Your task to perform on an android device: turn on notifications settings in the gmail app Image 0: 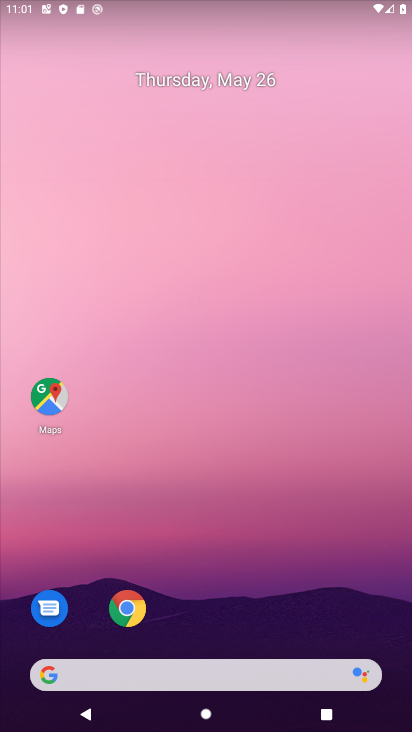
Step 0: drag from (216, 610) to (222, 153)
Your task to perform on an android device: turn on notifications settings in the gmail app Image 1: 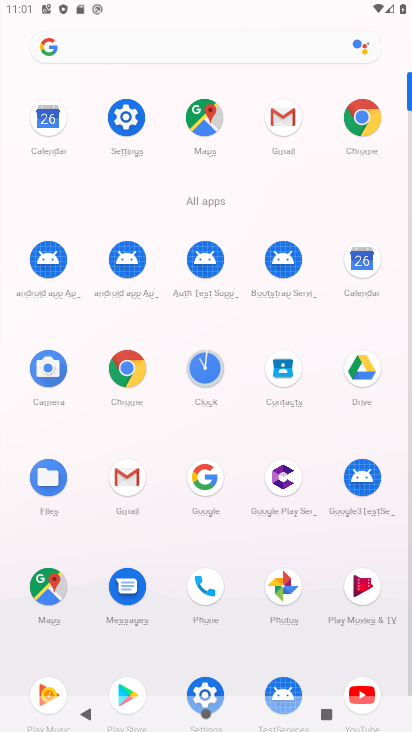
Step 1: click (285, 118)
Your task to perform on an android device: turn on notifications settings in the gmail app Image 2: 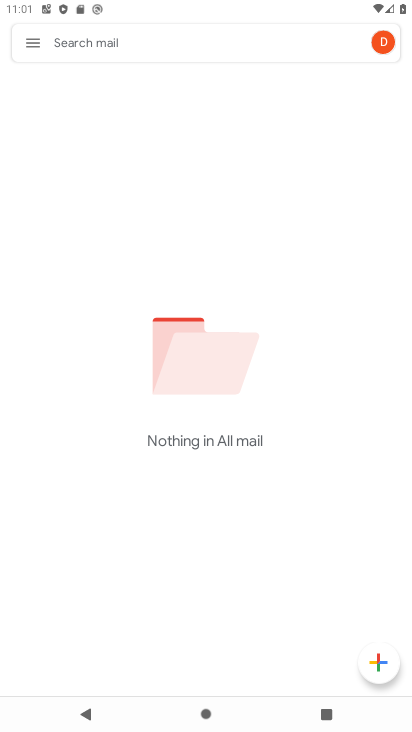
Step 2: click (25, 42)
Your task to perform on an android device: turn on notifications settings in the gmail app Image 3: 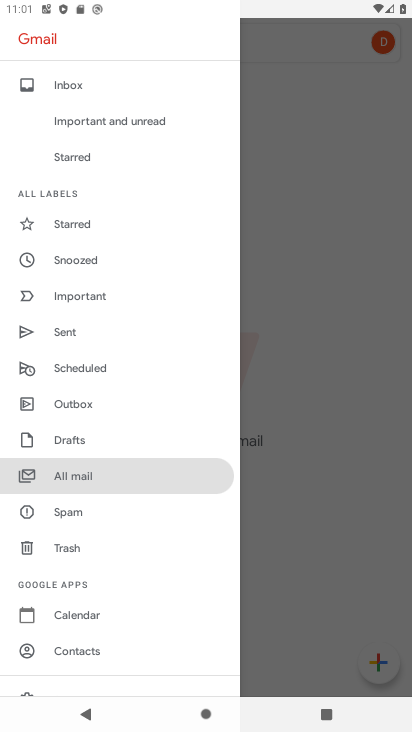
Step 3: drag from (98, 635) to (104, 283)
Your task to perform on an android device: turn on notifications settings in the gmail app Image 4: 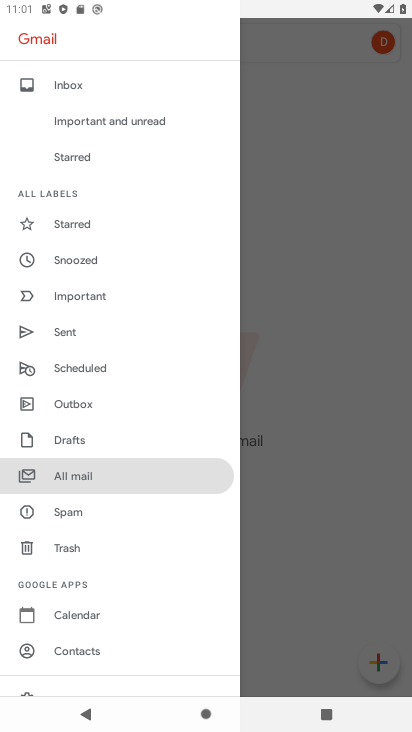
Step 4: drag from (87, 647) to (69, 371)
Your task to perform on an android device: turn on notifications settings in the gmail app Image 5: 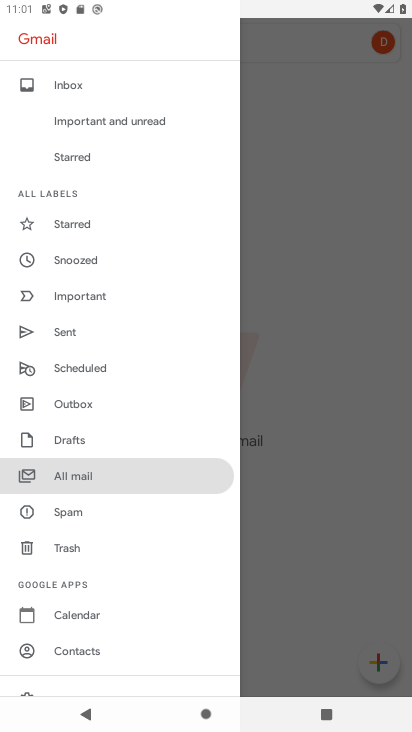
Step 5: drag from (118, 643) to (108, 372)
Your task to perform on an android device: turn on notifications settings in the gmail app Image 6: 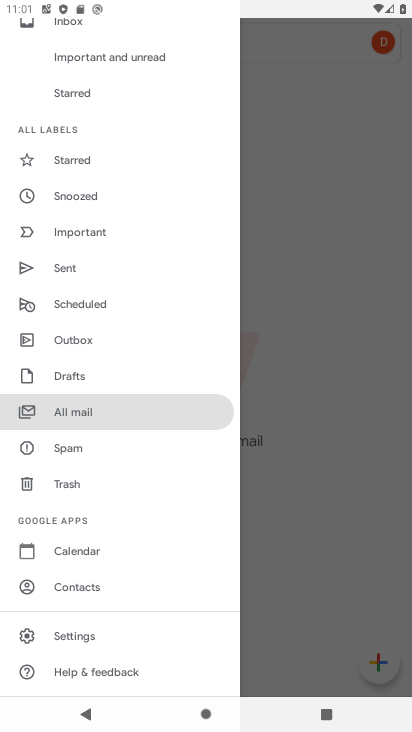
Step 6: click (80, 635)
Your task to perform on an android device: turn on notifications settings in the gmail app Image 7: 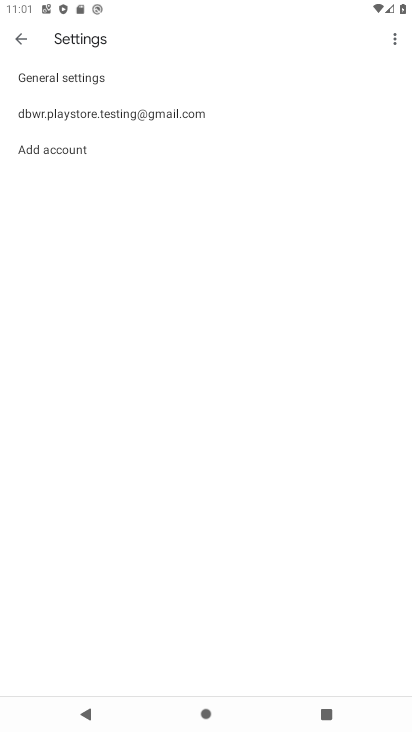
Step 7: click (223, 122)
Your task to perform on an android device: turn on notifications settings in the gmail app Image 8: 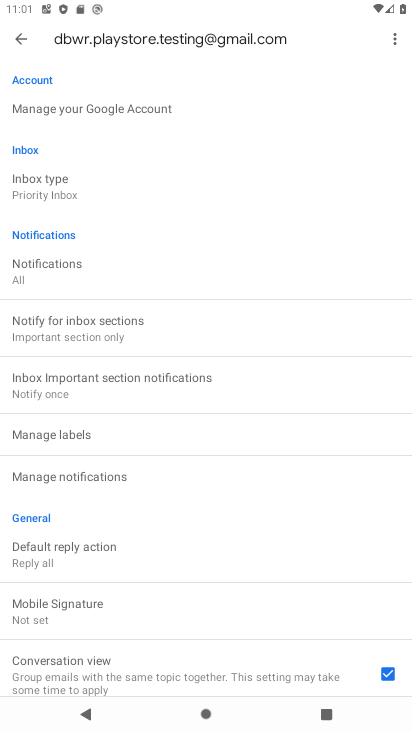
Step 8: click (121, 474)
Your task to perform on an android device: turn on notifications settings in the gmail app Image 9: 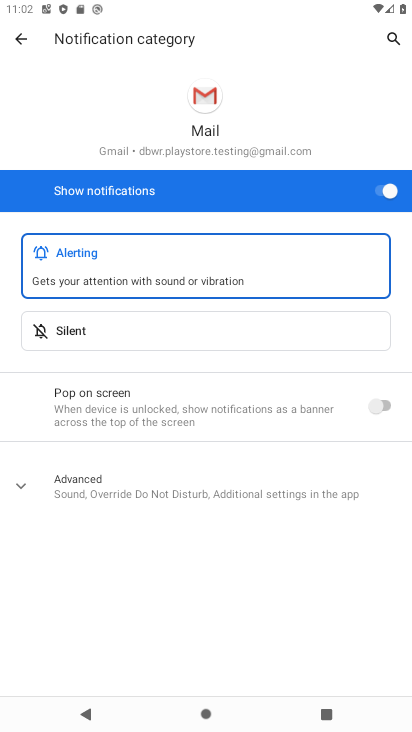
Step 9: click (379, 415)
Your task to perform on an android device: turn on notifications settings in the gmail app Image 10: 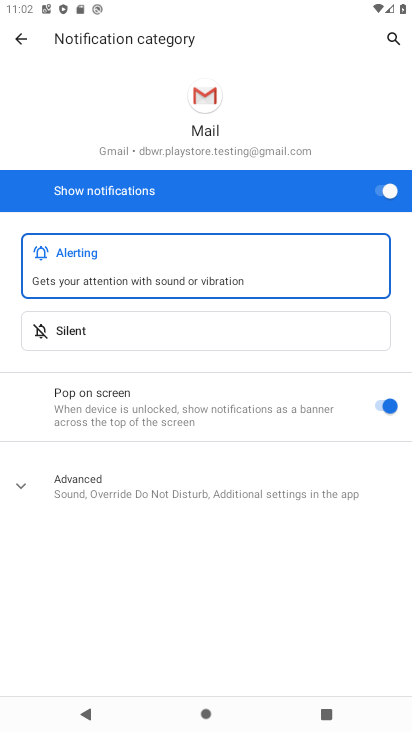
Step 10: task complete